Your task to perform on an android device: turn on airplane mode Image 0: 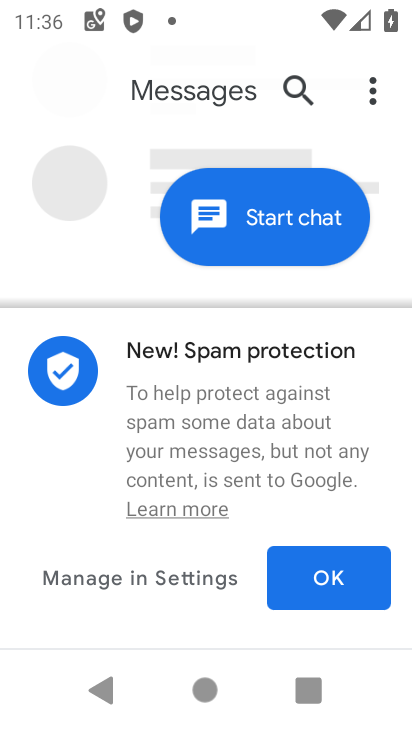
Step 0: press home button
Your task to perform on an android device: turn on airplane mode Image 1: 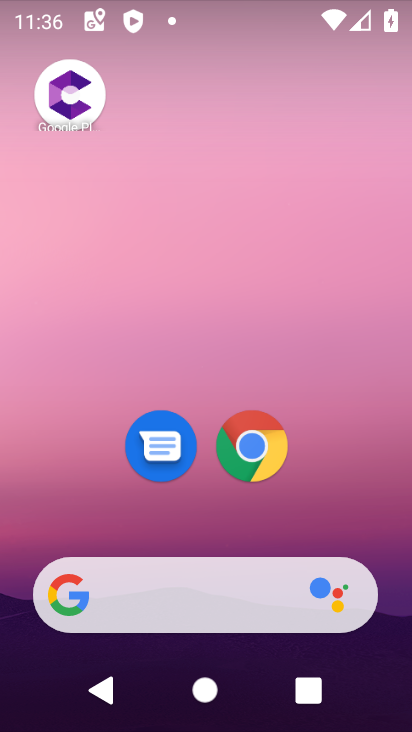
Step 1: drag from (235, 717) to (243, 222)
Your task to perform on an android device: turn on airplane mode Image 2: 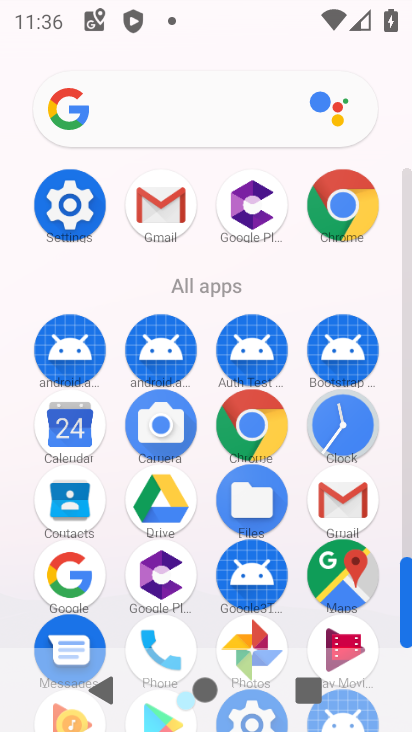
Step 2: click (68, 207)
Your task to perform on an android device: turn on airplane mode Image 3: 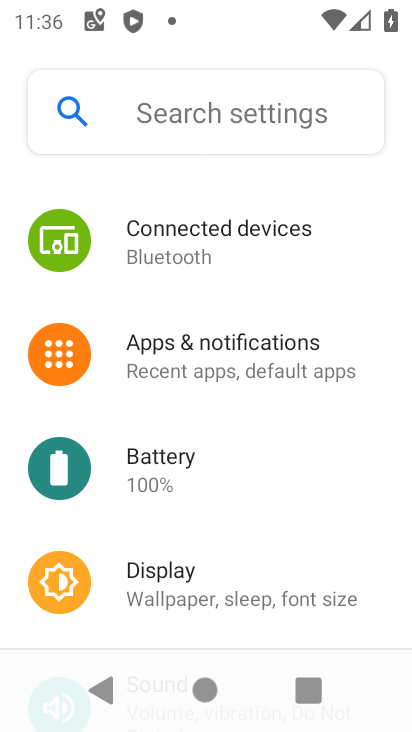
Step 3: drag from (203, 198) to (223, 634)
Your task to perform on an android device: turn on airplane mode Image 4: 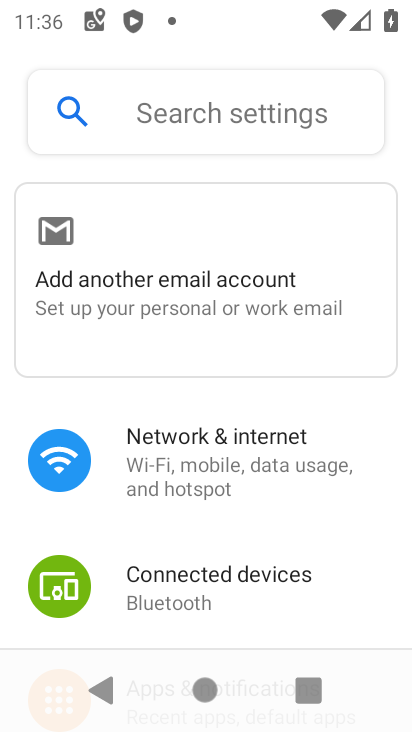
Step 4: click (172, 468)
Your task to perform on an android device: turn on airplane mode Image 5: 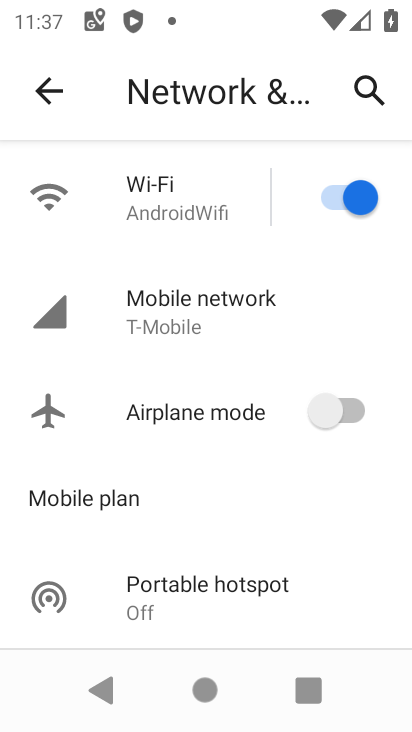
Step 5: click (347, 411)
Your task to perform on an android device: turn on airplane mode Image 6: 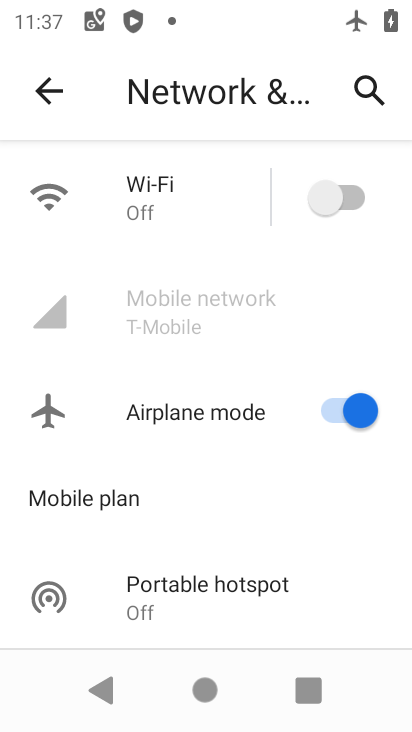
Step 6: task complete